Your task to perform on an android device: Open calendar and show me the fourth week of next month Image 0: 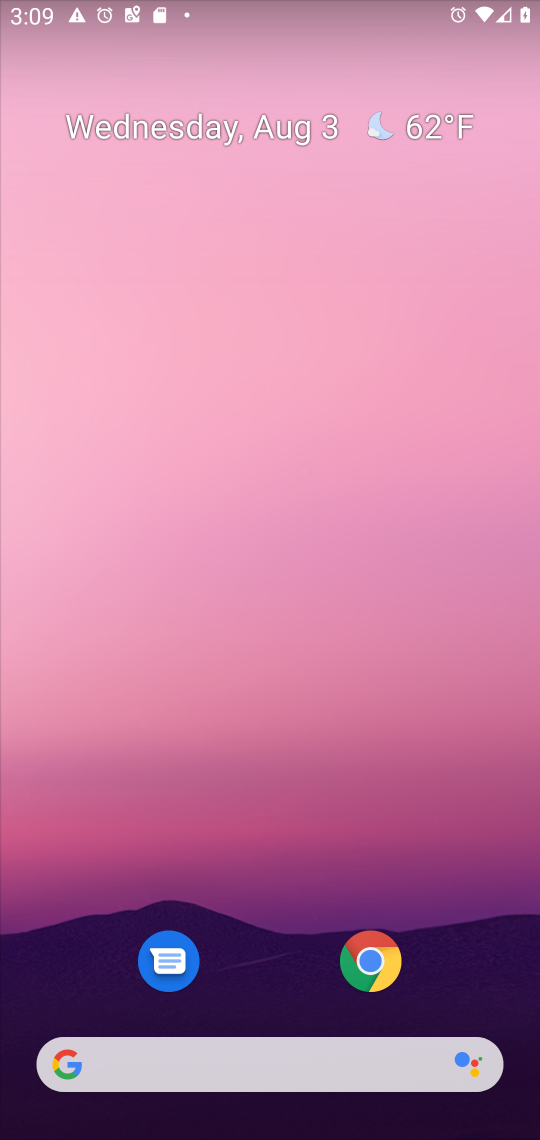
Step 0: drag from (277, 974) to (268, 8)
Your task to perform on an android device: Open calendar and show me the fourth week of next month Image 1: 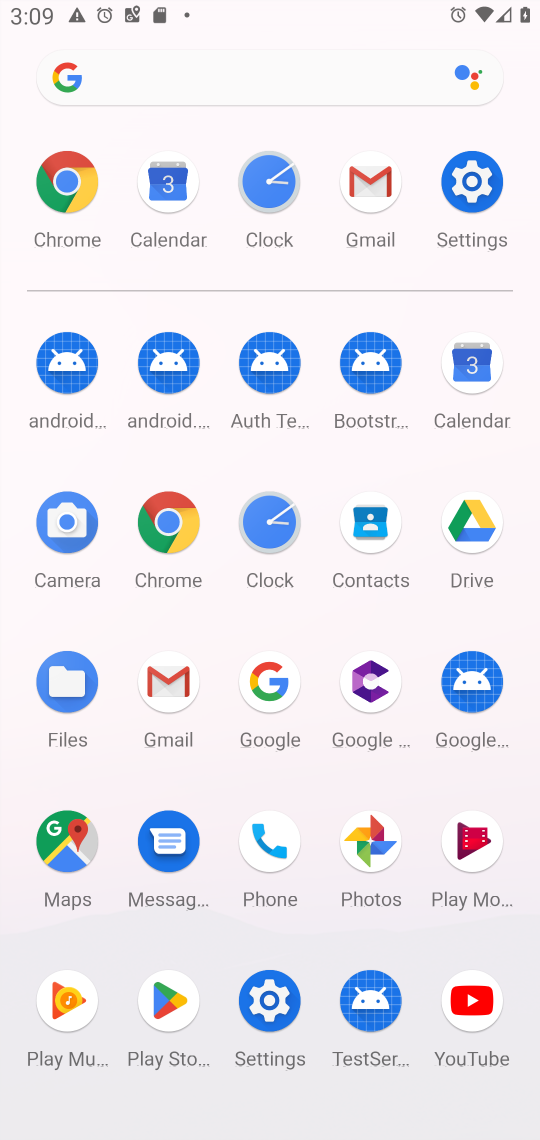
Step 1: click (474, 367)
Your task to perform on an android device: Open calendar and show me the fourth week of next month Image 2: 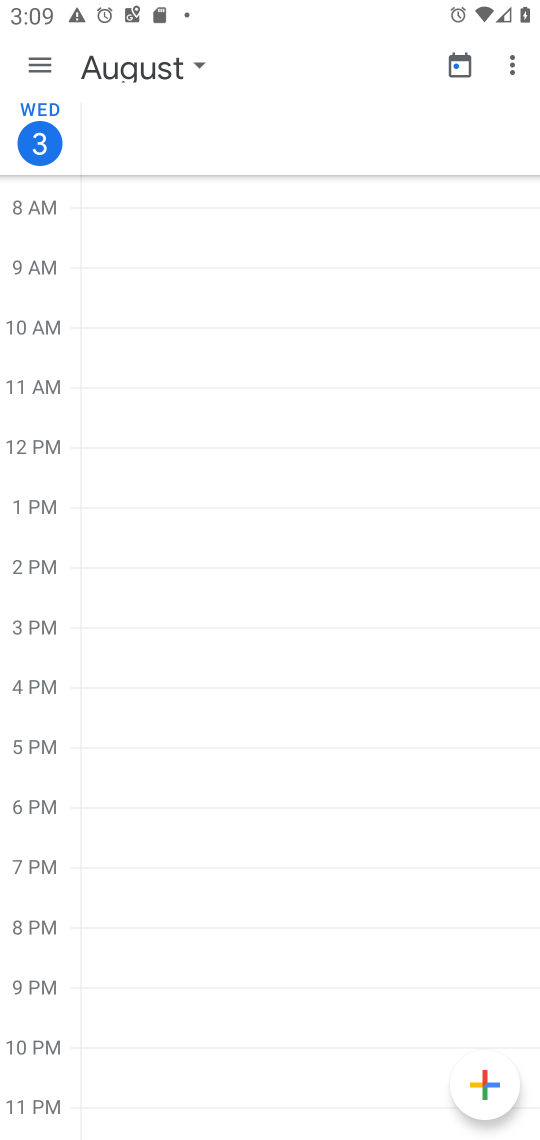
Step 2: click (198, 75)
Your task to perform on an android device: Open calendar and show me the fourth week of next month Image 3: 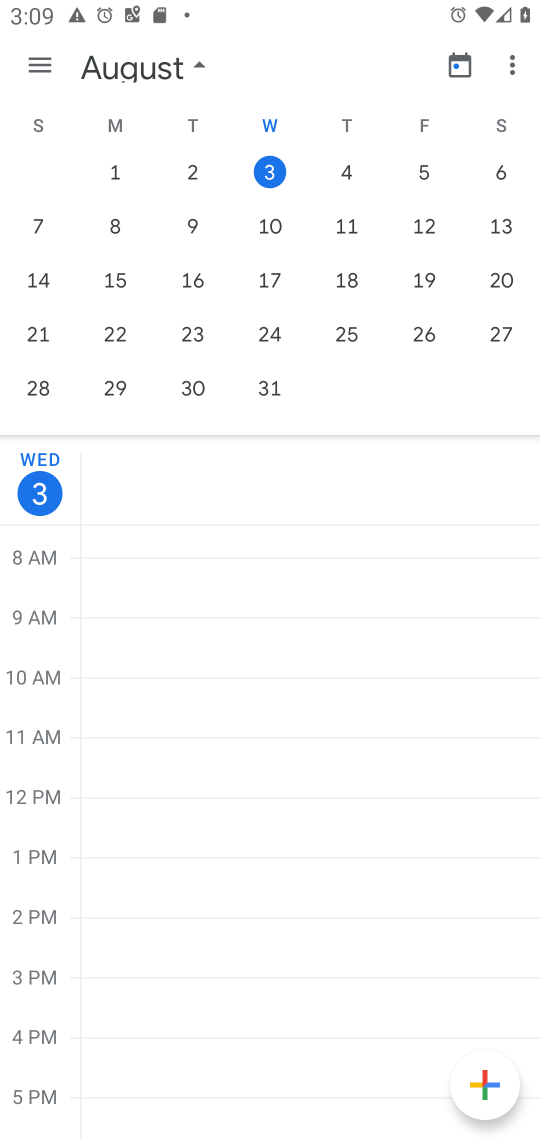
Step 3: drag from (404, 256) to (0, 116)
Your task to perform on an android device: Open calendar and show me the fourth week of next month Image 4: 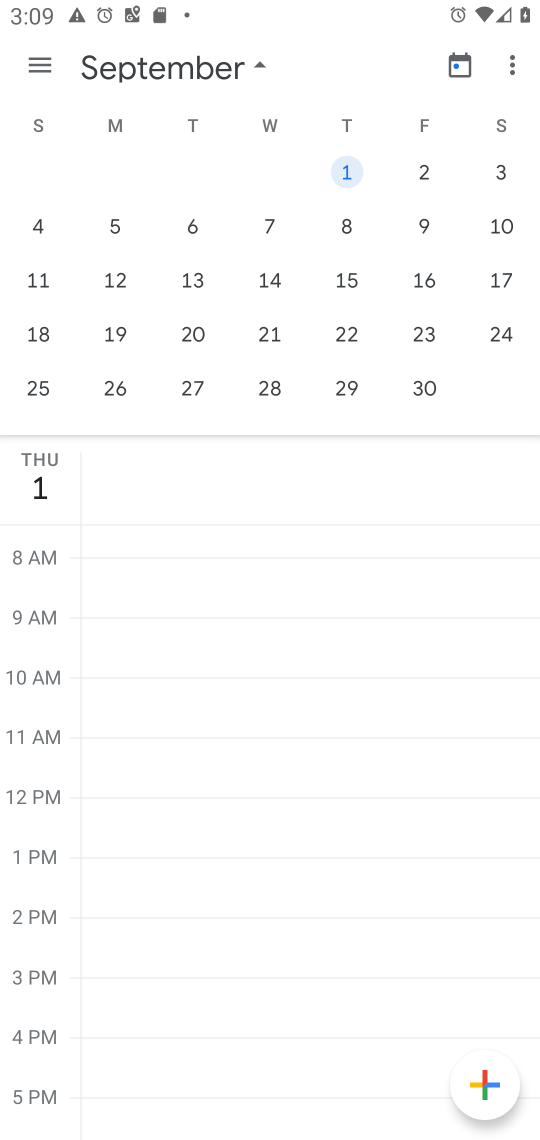
Step 4: click (33, 65)
Your task to perform on an android device: Open calendar and show me the fourth week of next month Image 5: 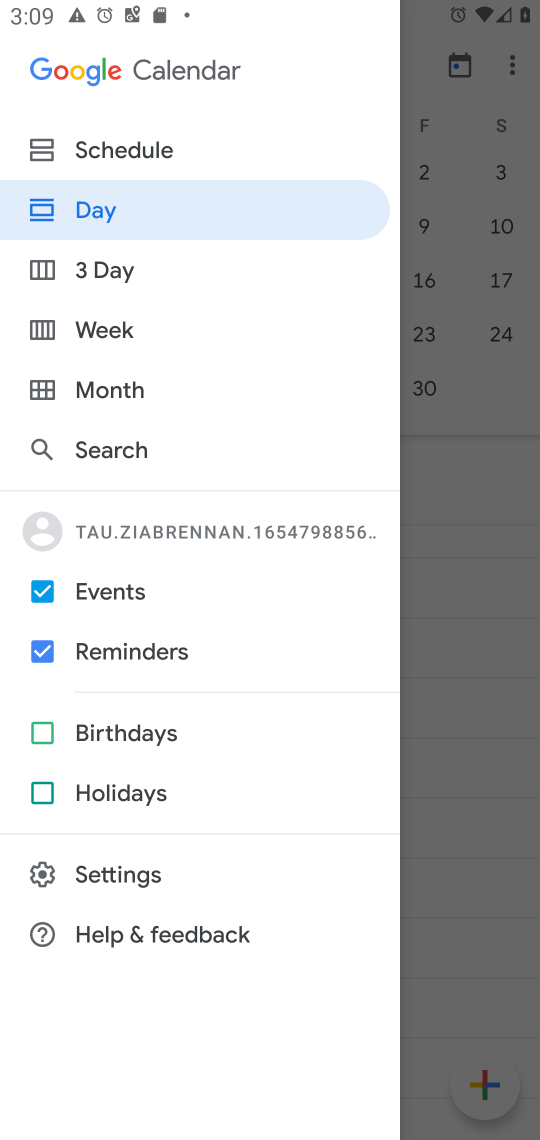
Step 5: click (79, 313)
Your task to perform on an android device: Open calendar and show me the fourth week of next month Image 6: 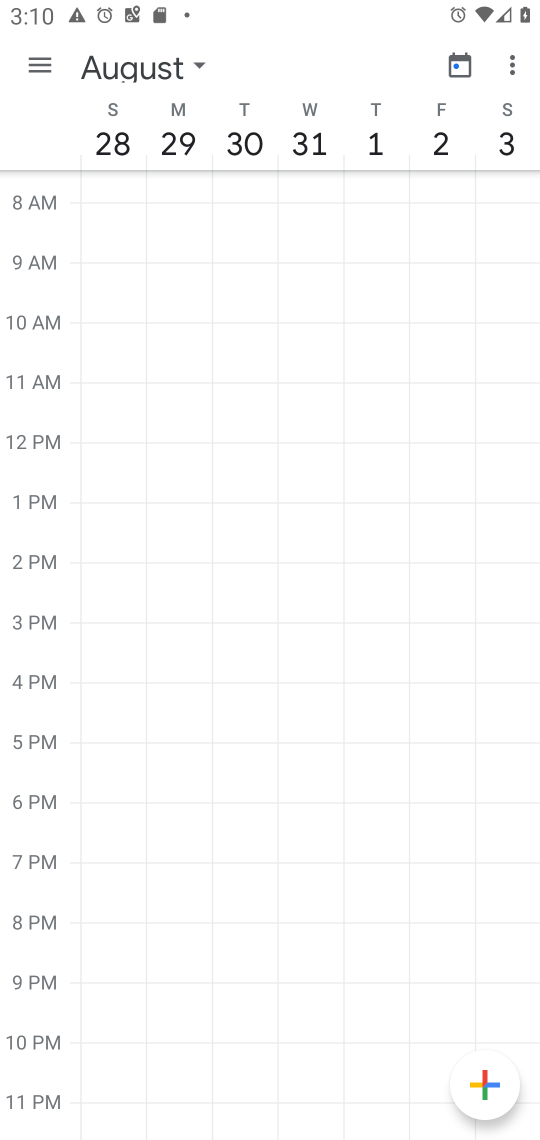
Step 6: task complete